Your task to perform on an android device: Go to Amazon Image 0: 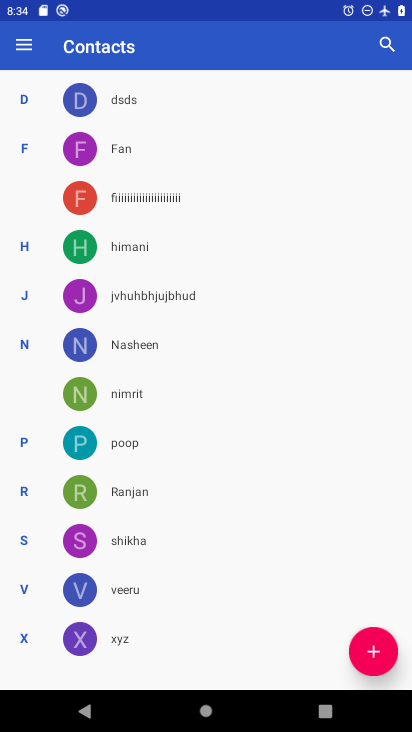
Step 0: press home button
Your task to perform on an android device: Go to Amazon Image 1: 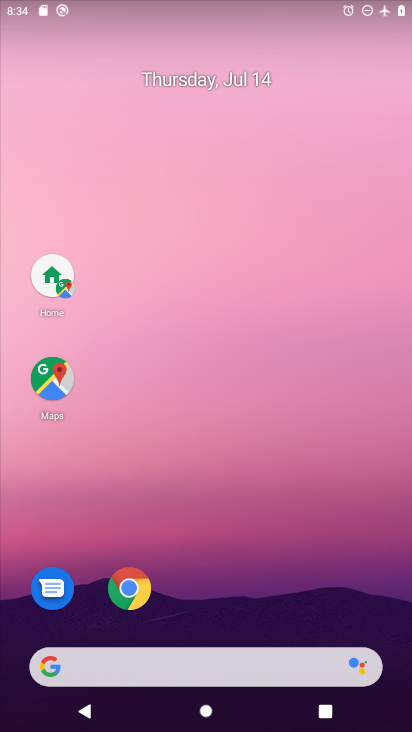
Step 1: click (92, 671)
Your task to perform on an android device: Go to Amazon Image 2: 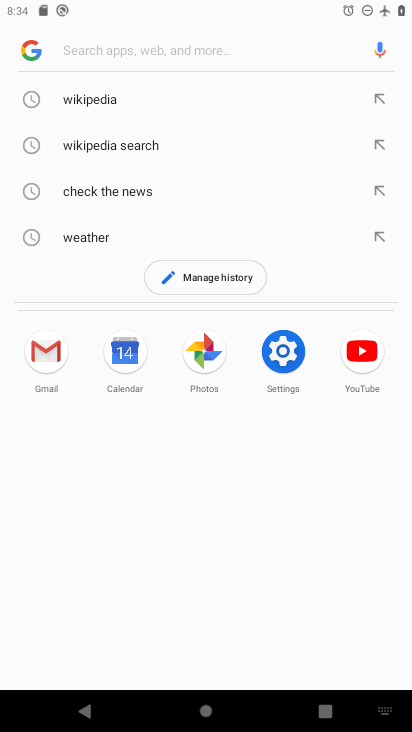
Step 2: type "Amazon"
Your task to perform on an android device: Go to Amazon Image 3: 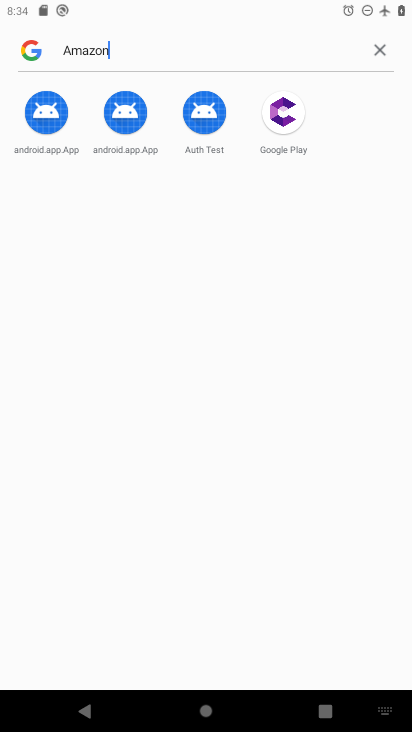
Step 3: type ""
Your task to perform on an android device: Go to Amazon Image 4: 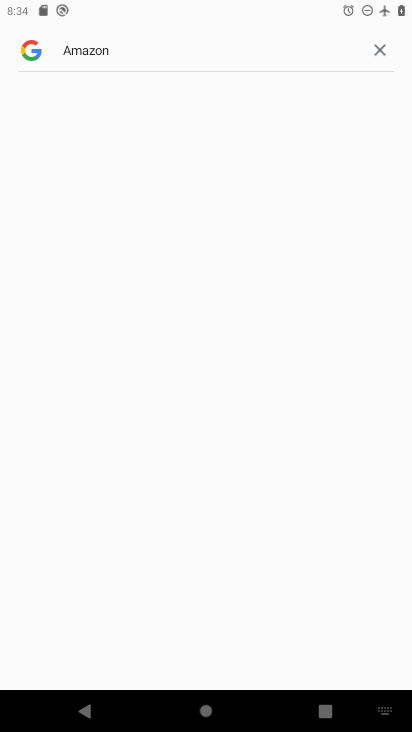
Step 4: type ""
Your task to perform on an android device: Go to Amazon Image 5: 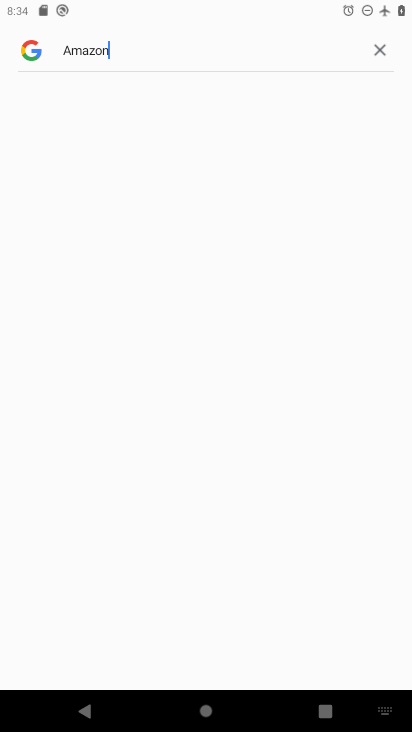
Step 5: type ""
Your task to perform on an android device: Go to Amazon Image 6: 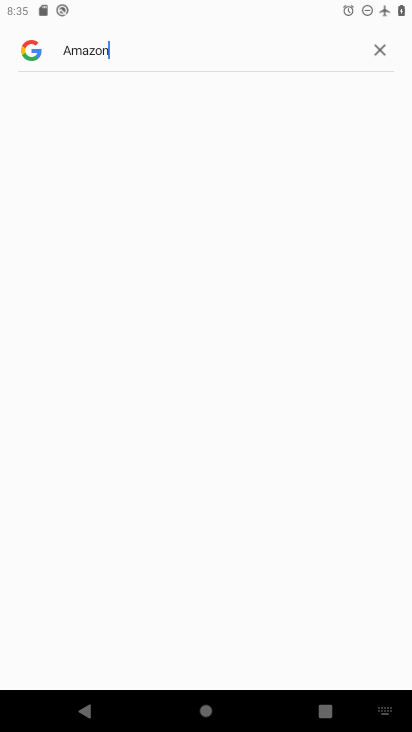
Step 6: type ""
Your task to perform on an android device: Go to Amazon Image 7: 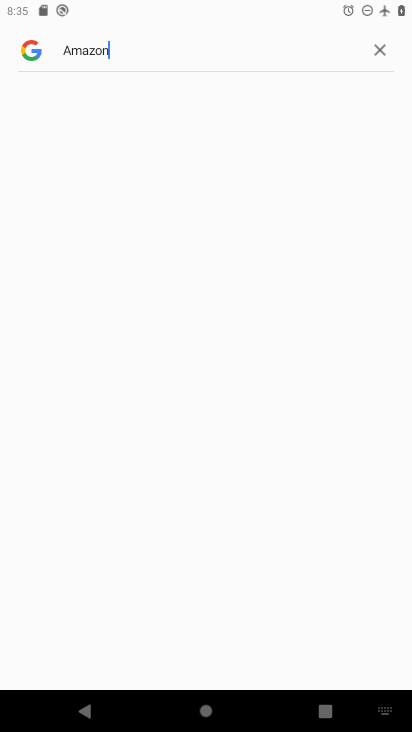
Step 7: type ""
Your task to perform on an android device: Go to Amazon Image 8: 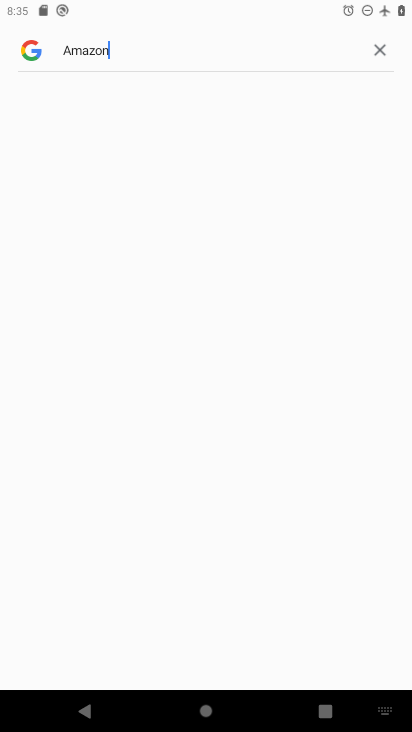
Step 8: task complete